Your task to perform on an android device: Open calendar and show me the second week of next month Image 0: 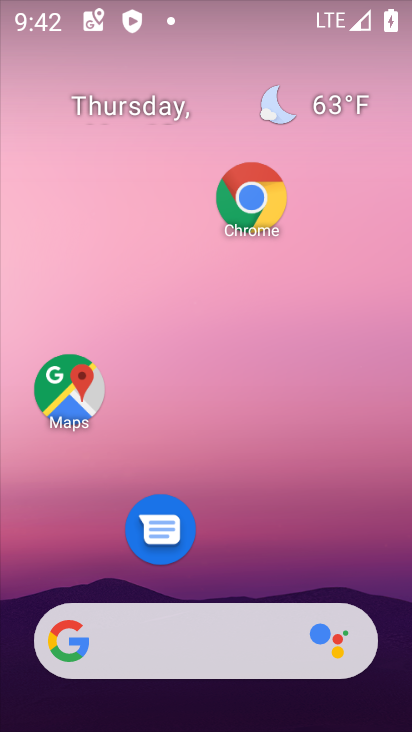
Step 0: drag from (280, 656) to (265, 170)
Your task to perform on an android device: Open calendar and show me the second week of next month Image 1: 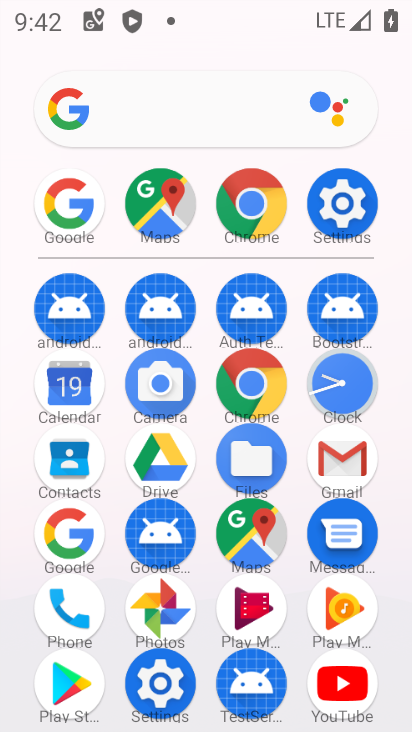
Step 1: click (78, 403)
Your task to perform on an android device: Open calendar and show me the second week of next month Image 2: 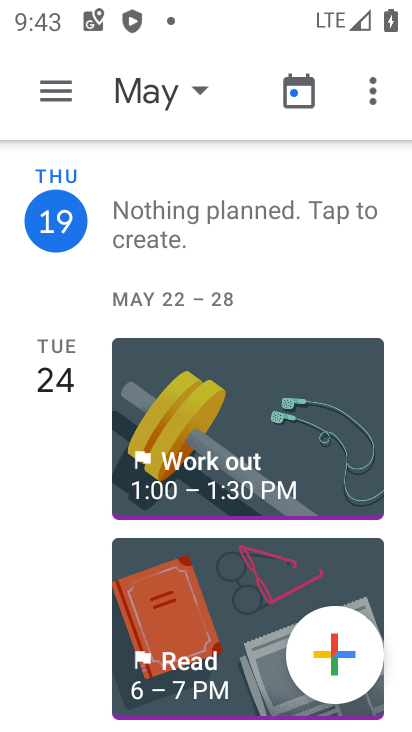
Step 2: click (197, 90)
Your task to perform on an android device: Open calendar and show me the second week of next month Image 3: 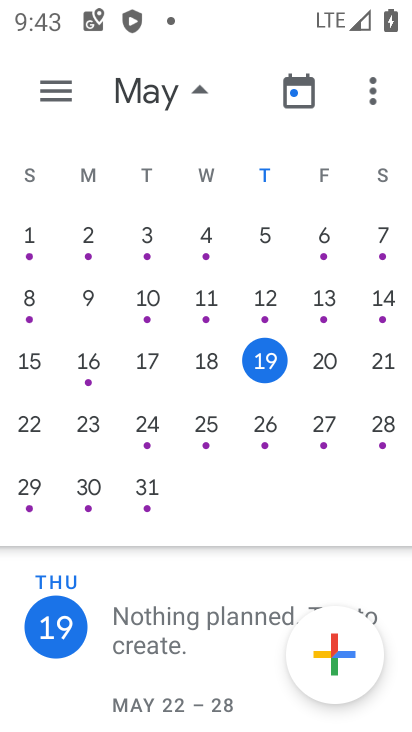
Step 3: drag from (351, 424) to (2, 354)
Your task to perform on an android device: Open calendar and show me the second week of next month Image 4: 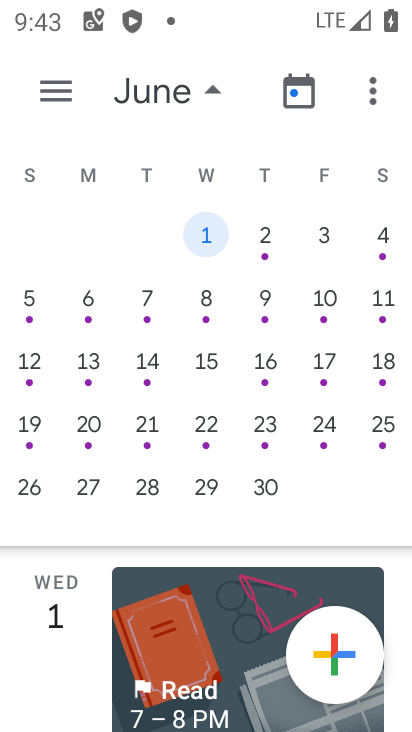
Step 4: click (33, 388)
Your task to perform on an android device: Open calendar and show me the second week of next month Image 5: 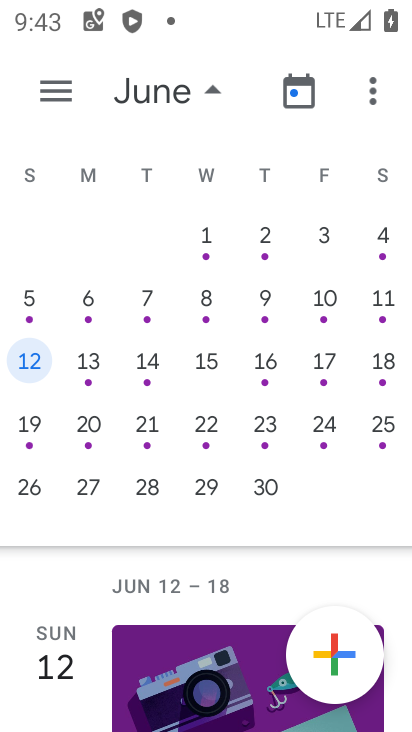
Step 5: task complete